Your task to perform on an android device: Open sound settings Image 0: 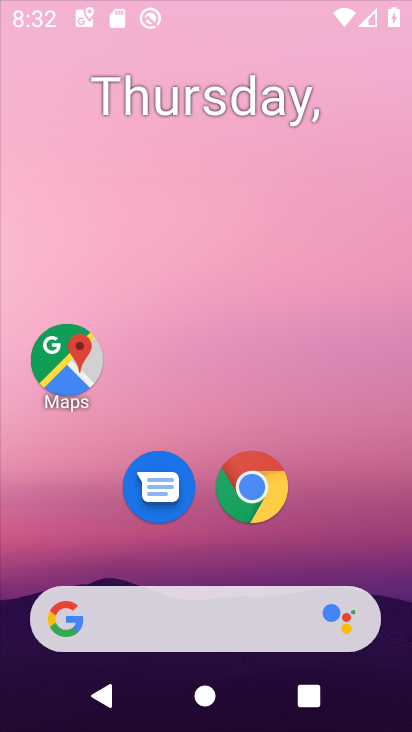
Step 0: click (272, 96)
Your task to perform on an android device: Open sound settings Image 1: 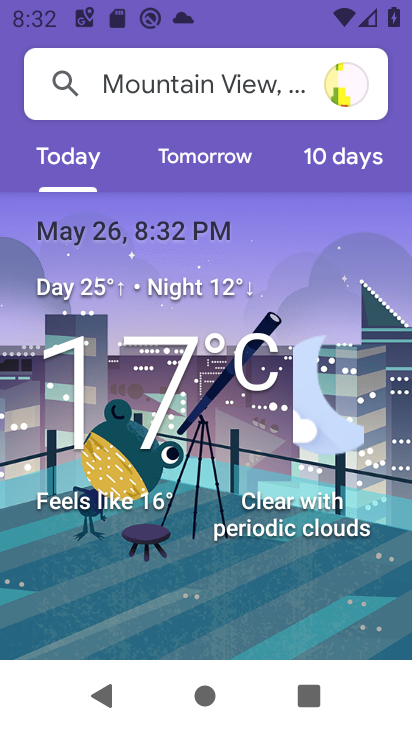
Step 1: press home button
Your task to perform on an android device: Open sound settings Image 2: 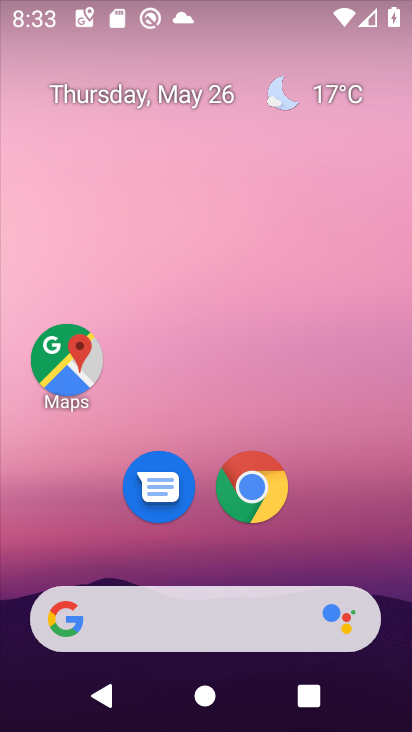
Step 2: drag from (198, 553) to (276, 5)
Your task to perform on an android device: Open sound settings Image 3: 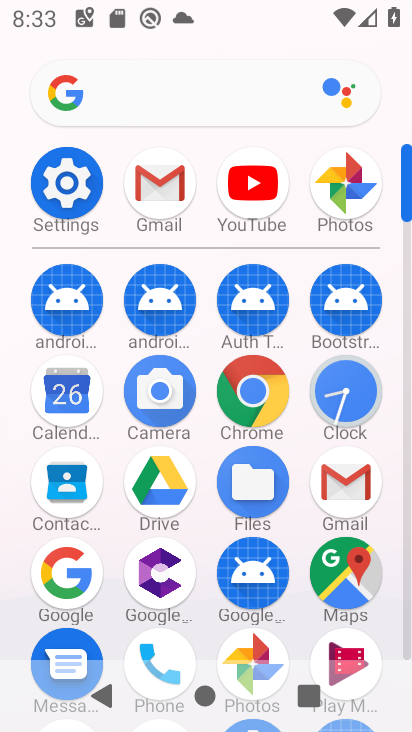
Step 3: click (75, 179)
Your task to perform on an android device: Open sound settings Image 4: 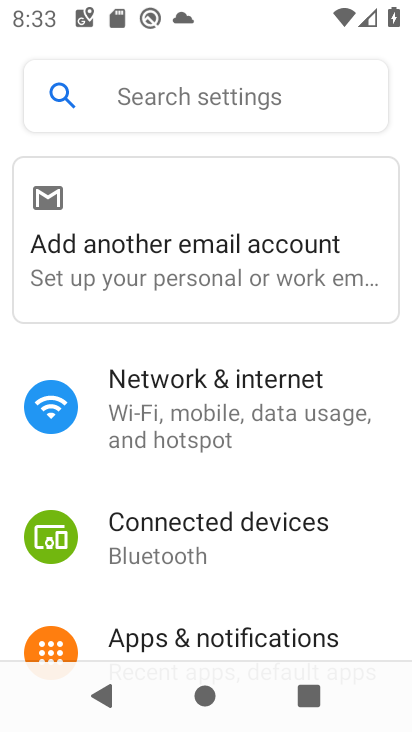
Step 4: drag from (179, 573) to (216, 185)
Your task to perform on an android device: Open sound settings Image 5: 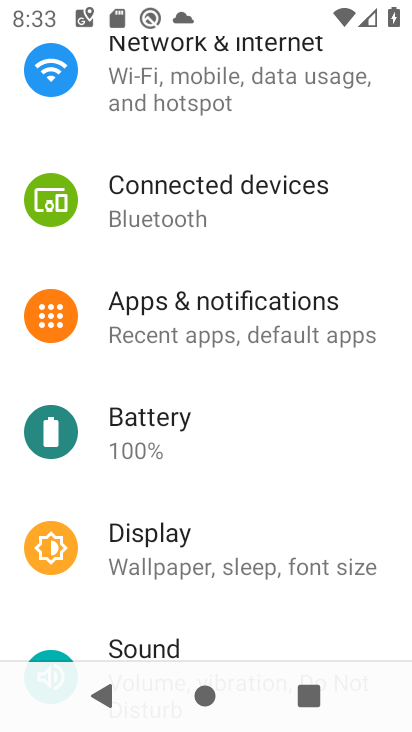
Step 5: drag from (197, 583) to (234, 312)
Your task to perform on an android device: Open sound settings Image 6: 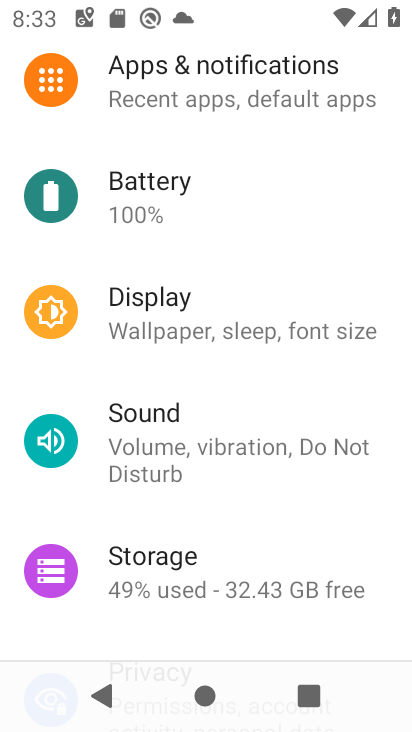
Step 6: click (162, 431)
Your task to perform on an android device: Open sound settings Image 7: 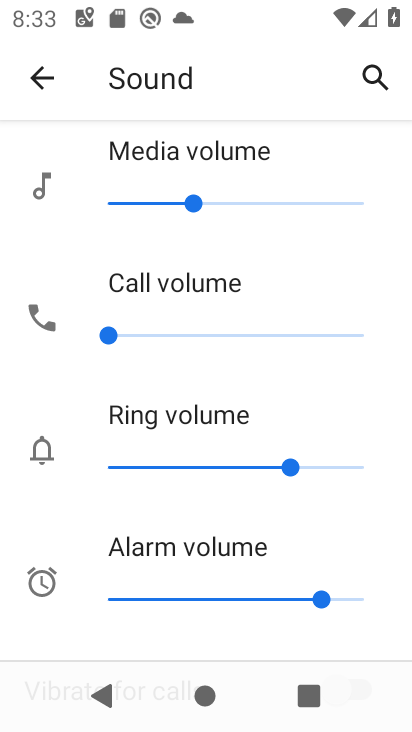
Step 7: task complete